Your task to perform on an android device: toggle improve location accuracy Image 0: 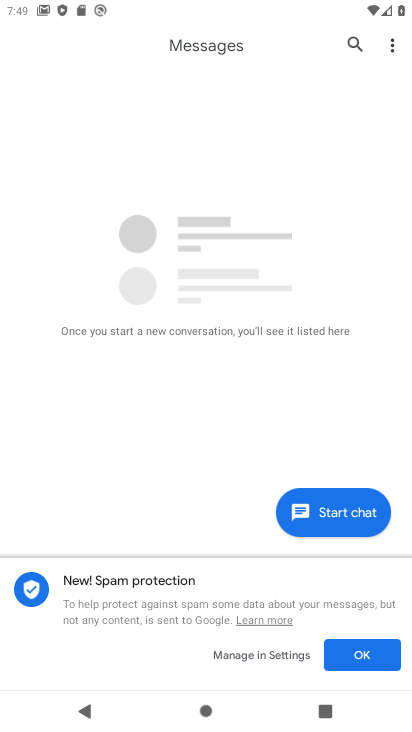
Step 0: press home button
Your task to perform on an android device: toggle improve location accuracy Image 1: 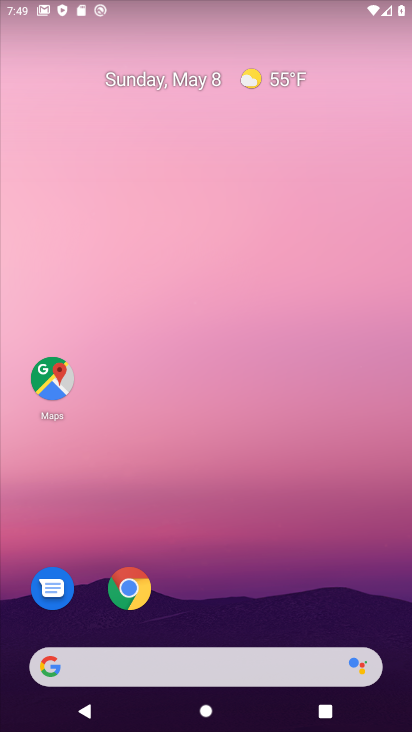
Step 1: drag from (345, 603) to (237, 4)
Your task to perform on an android device: toggle improve location accuracy Image 2: 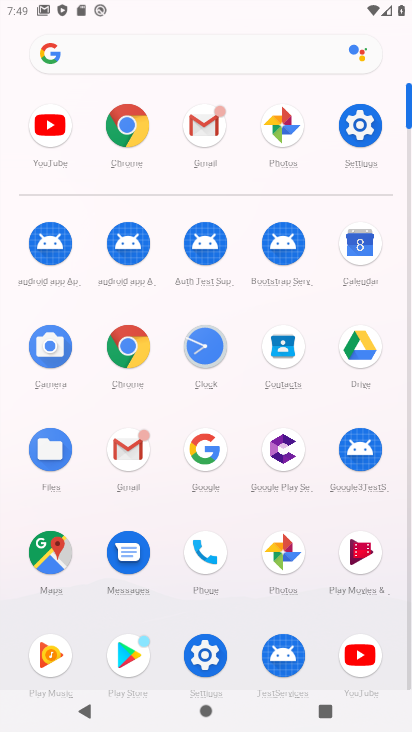
Step 2: click (200, 656)
Your task to perform on an android device: toggle improve location accuracy Image 3: 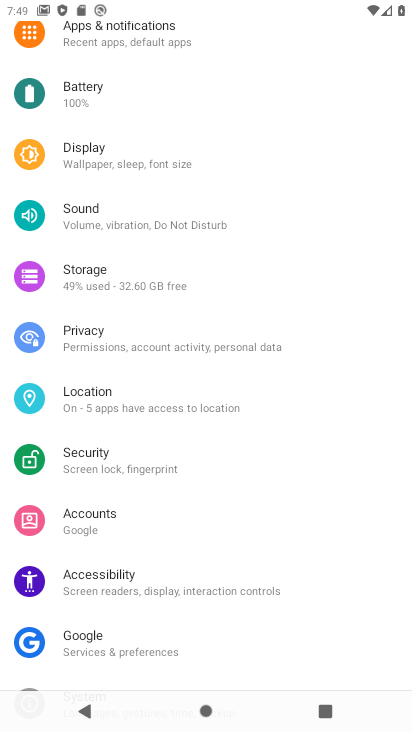
Step 3: click (125, 404)
Your task to perform on an android device: toggle improve location accuracy Image 4: 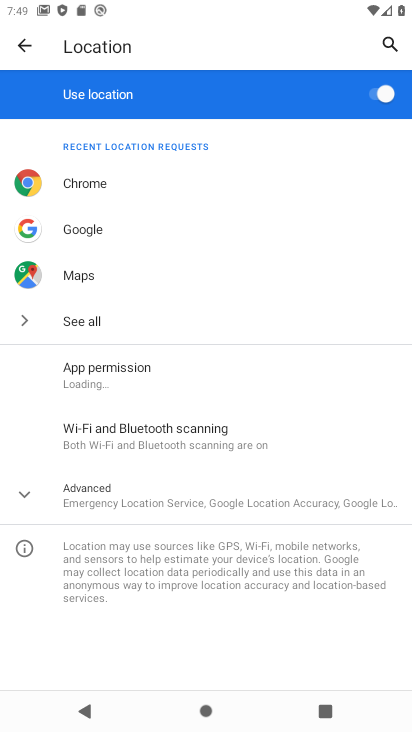
Step 4: click (43, 489)
Your task to perform on an android device: toggle improve location accuracy Image 5: 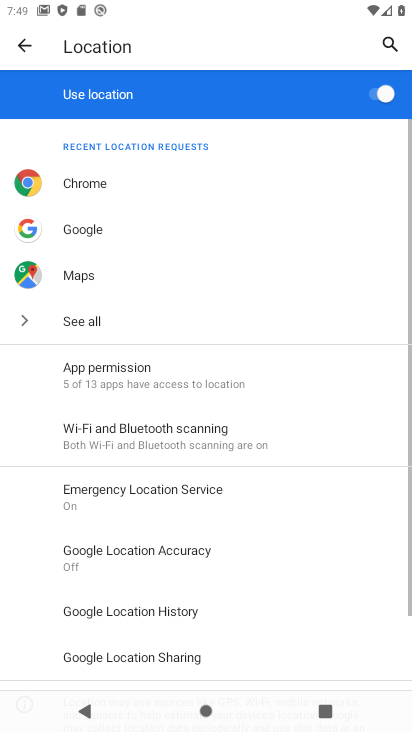
Step 5: click (149, 561)
Your task to perform on an android device: toggle improve location accuracy Image 6: 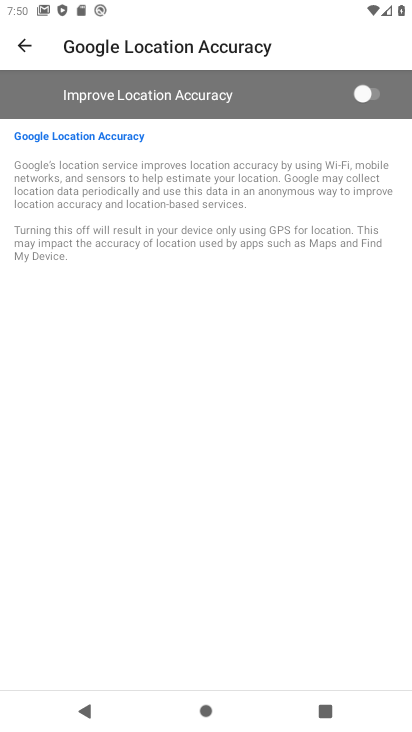
Step 6: click (346, 91)
Your task to perform on an android device: toggle improve location accuracy Image 7: 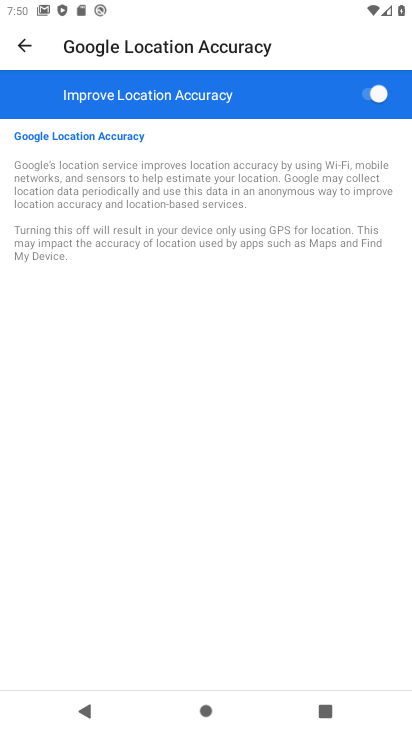
Step 7: task complete